Your task to perform on an android device: Search for pizza restaurants on Maps Image 0: 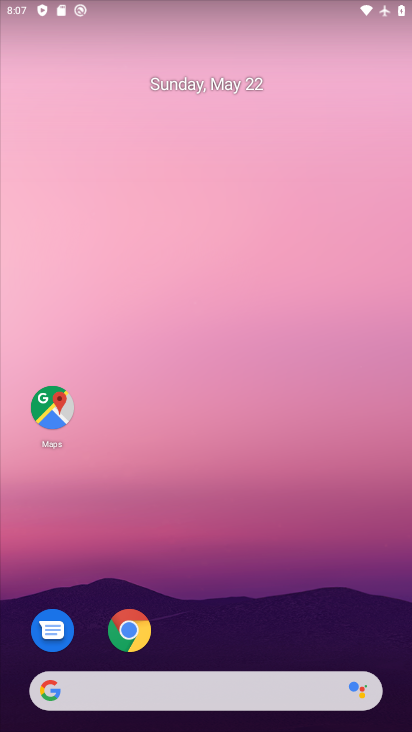
Step 0: click (53, 408)
Your task to perform on an android device: Search for pizza restaurants on Maps Image 1: 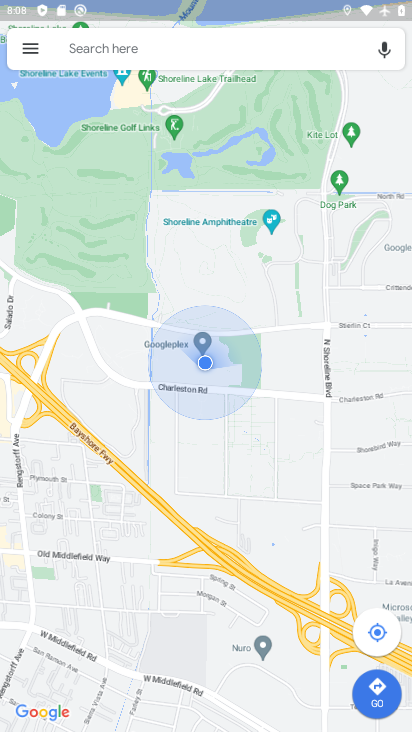
Step 1: click (111, 51)
Your task to perform on an android device: Search for pizza restaurants on Maps Image 2: 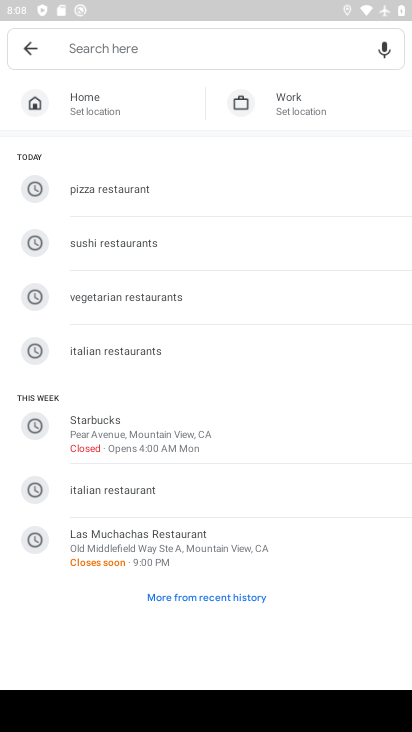
Step 2: type "pizza restaurants"
Your task to perform on an android device: Search for pizza restaurants on Maps Image 3: 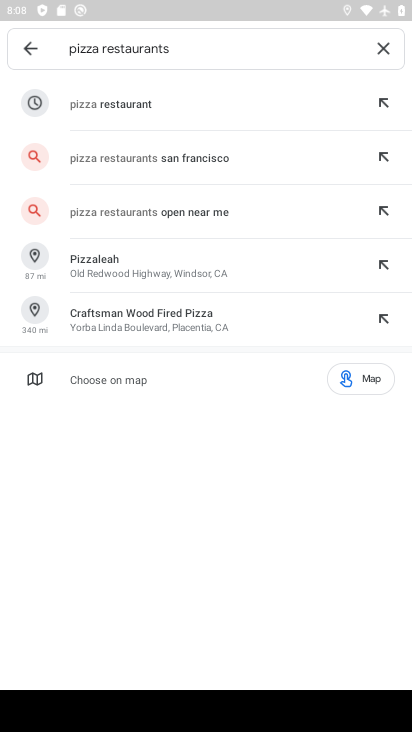
Step 3: click (92, 100)
Your task to perform on an android device: Search for pizza restaurants on Maps Image 4: 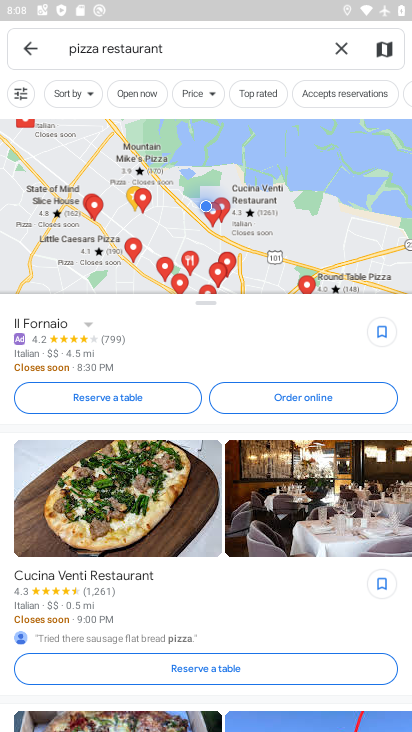
Step 4: task complete